Your task to perform on an android device: Find coffee shops on Maps Image 0: 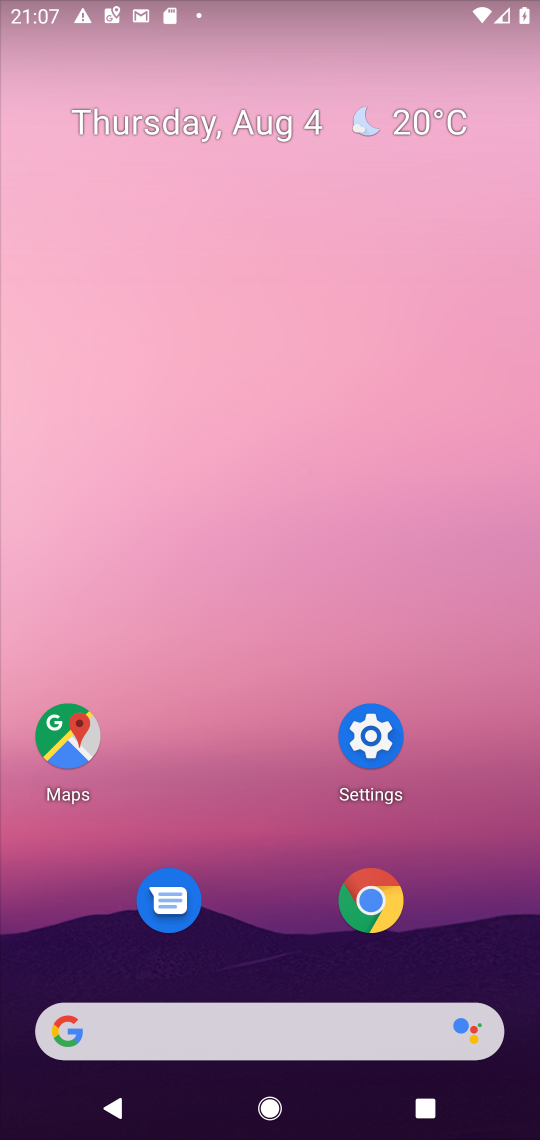
Step 0: press home button
Your task to perform on an android device: Find coffee shops on Maps Image 1: 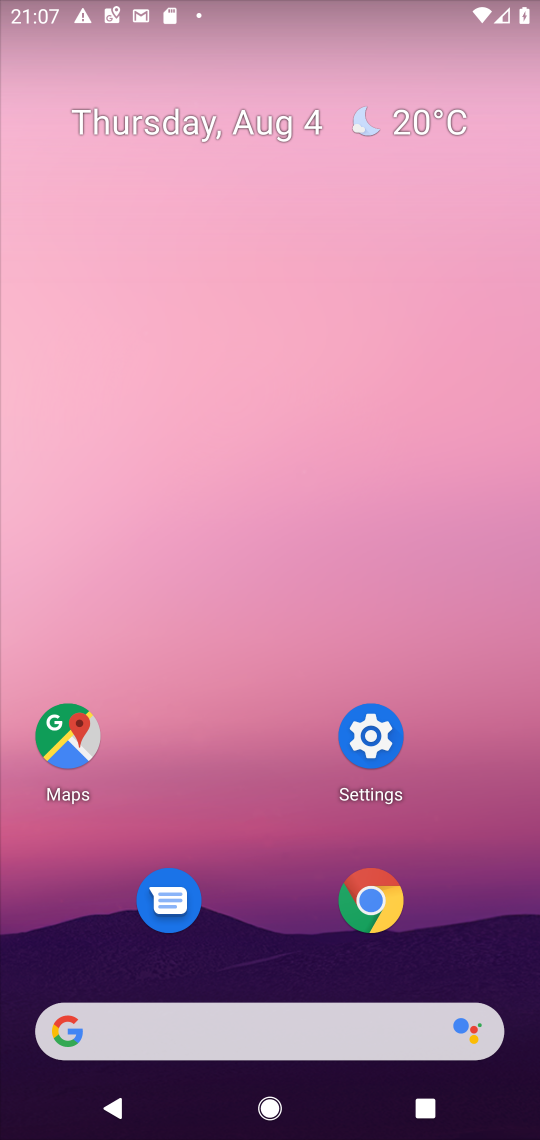
Step 1: click (66, 743)
Your task to perform on an android device: Find coffee shops on Maps Image 2: 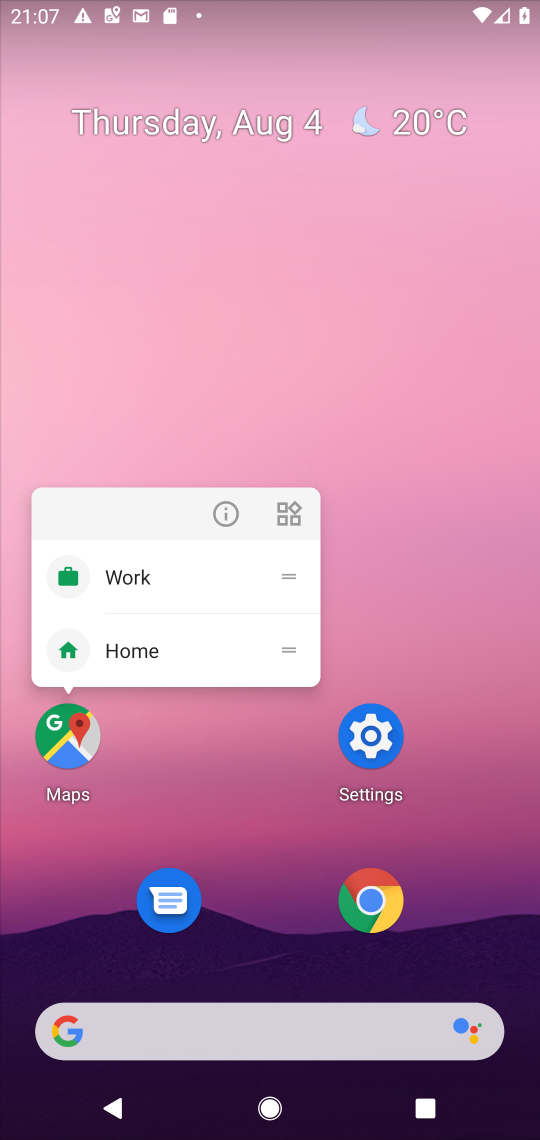
Step 2: click (59, 722)
Your task to perform on an android device: Find coffee shops on Maps Image 3: 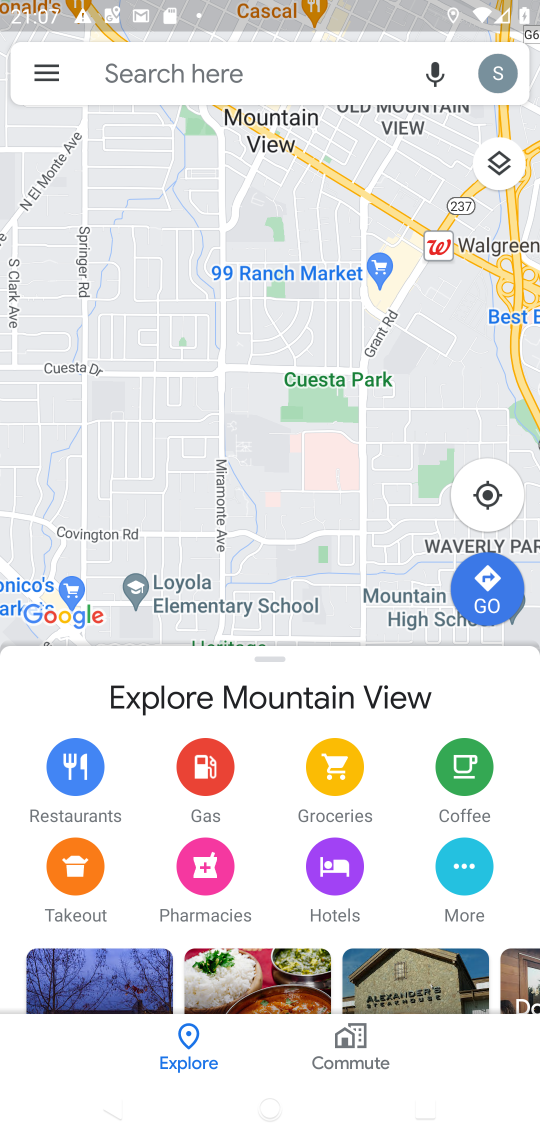
Step 3: click (202, 80)
Your task to perform on an android device: Find coffee shops on Maps Image 4: 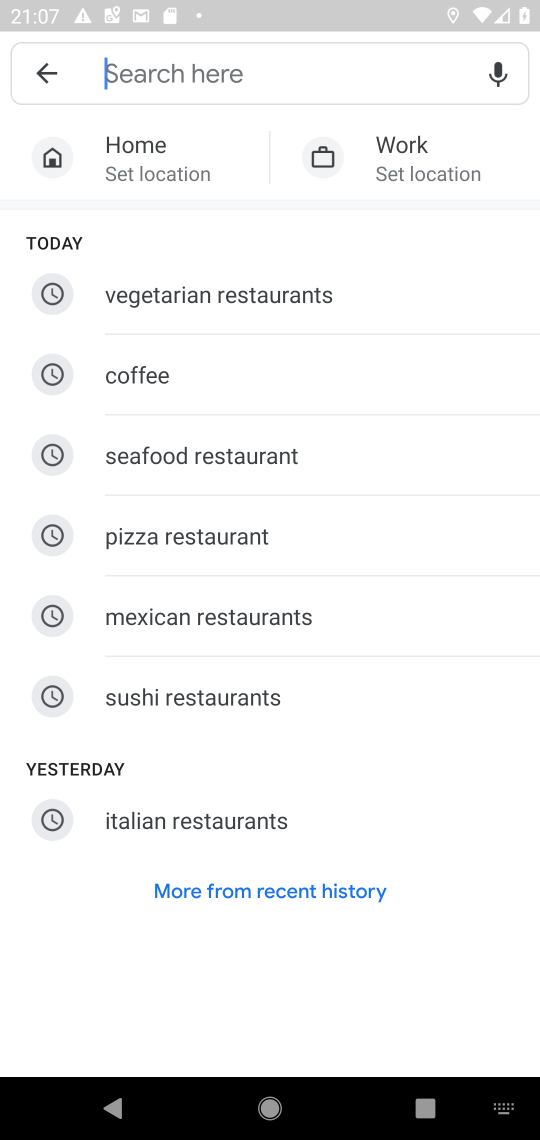
Step 4: click (205, 384)
Your task to perform on an android device: Find coffee shops on Maps Image 5: 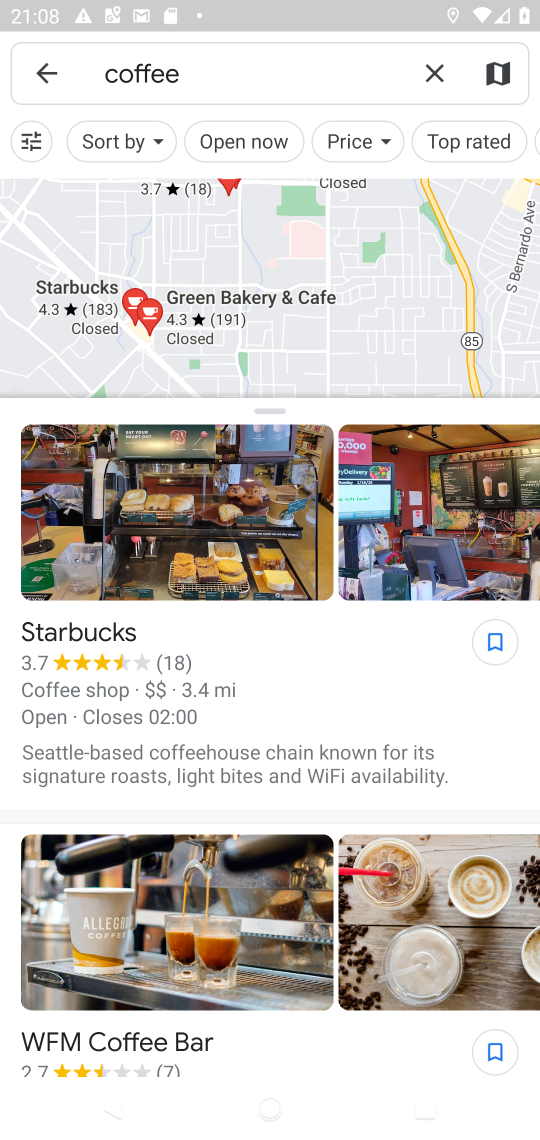
Step 5: task complete